Your task to perform on an android device: When is my next appointment? Image 0: 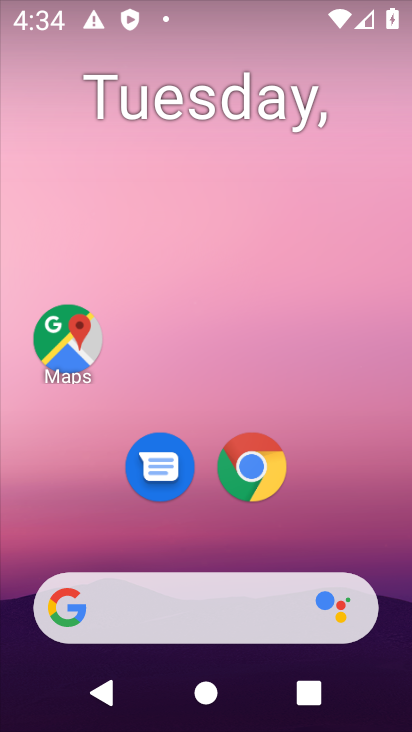
Step 0: drag from (310, 556) to (311, 1)
Your task to perform on an android device: When is my next appointment? Image 1: 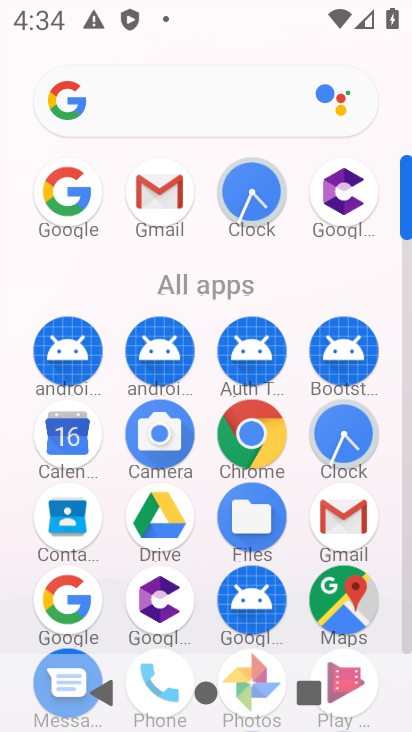
Step 1: click (77, 522)
Your task to perform on an android device: When is my next appointment? Image 2: 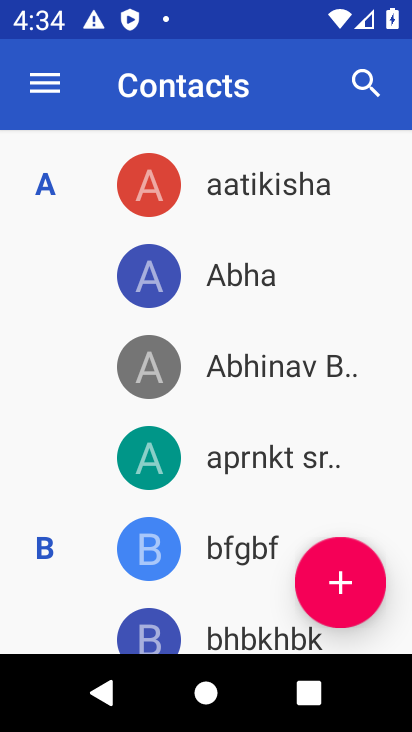
Step 2: press back button
Your task to perform on an android device: When is my next appointment? Image 3: 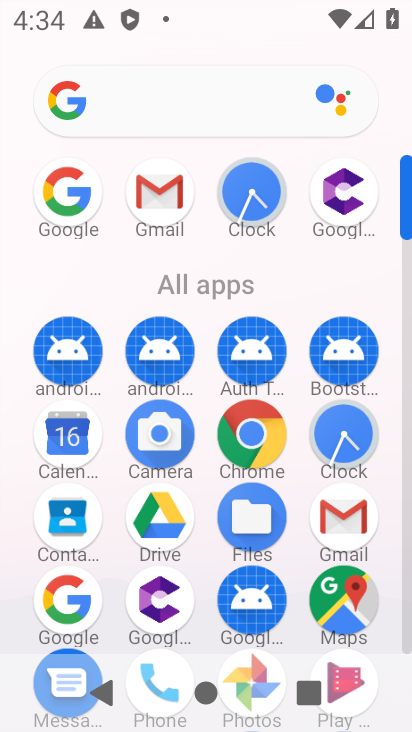
Step 3: click (48, 444)
Your task to perform on an android device: When is my next appointment? Image 4: 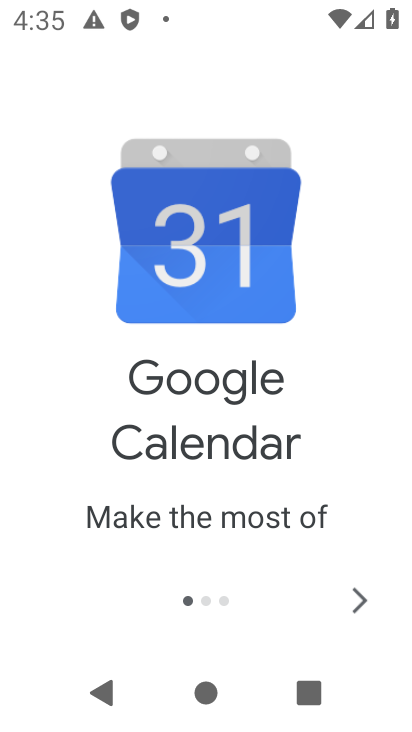
Step 4: click (354, 611)
Your task to perform on an android device: When is my next appointment? Image 5: 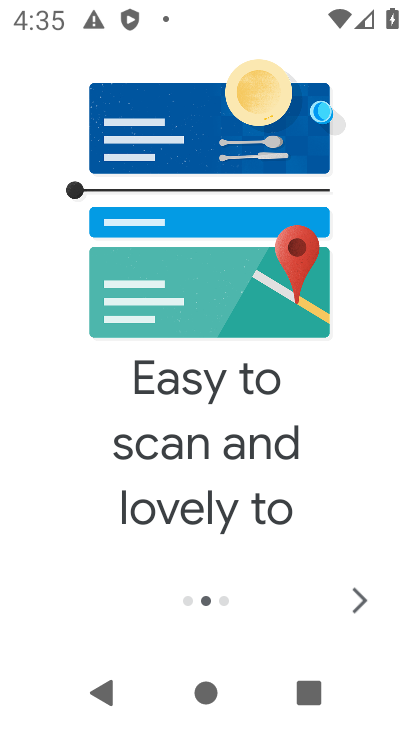
Step 5: click (355, 608)
Your task to perform on an android device: When is my next appointment? Image 6: 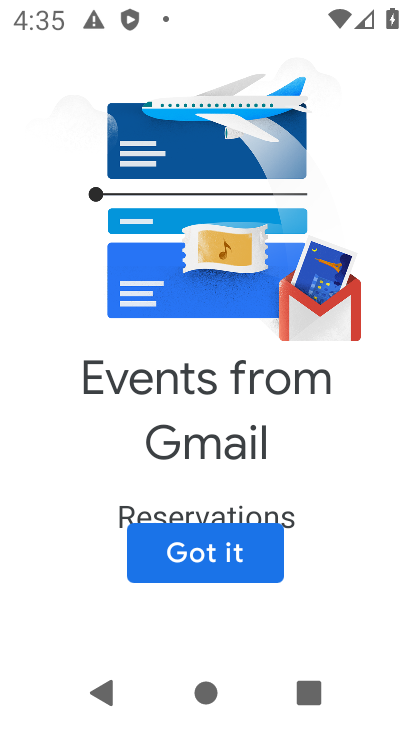
Step 6: click (165, 549)
Your task to perform on an android device: When is my next appointment? Image 7: 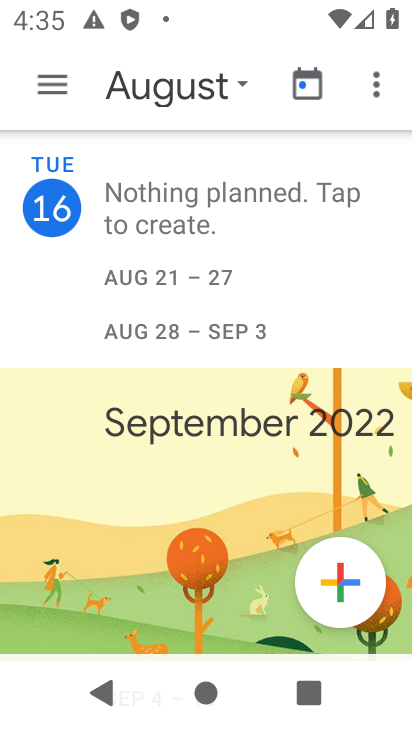
Step 7: click (155, 68)
Your task to perform on an android device: When is my next appointment? Image 8: 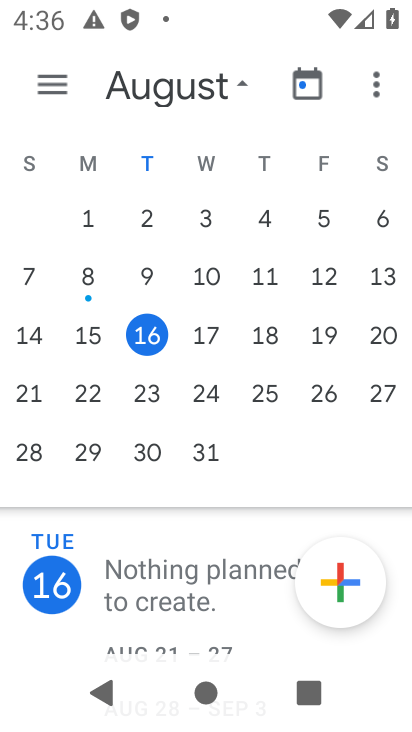
Step 8: task complete